Your task to perform on an android device: What's the weather today? Image 0: 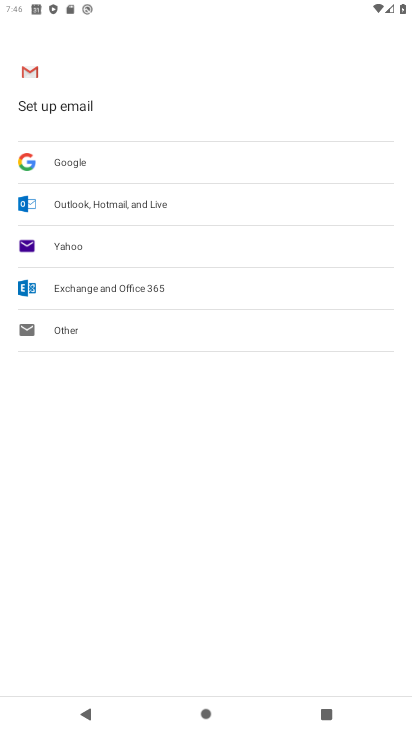
Step 0: press home button
Your task to perform on an android device: What's the weather today? Image 1: 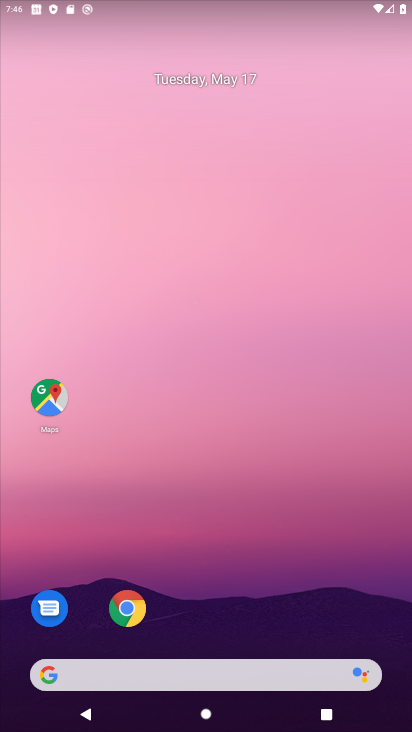
Step 1: drag from (369, 593) to (293, 60)
Your task to perform on an android device: What's the weather today? Image 2: 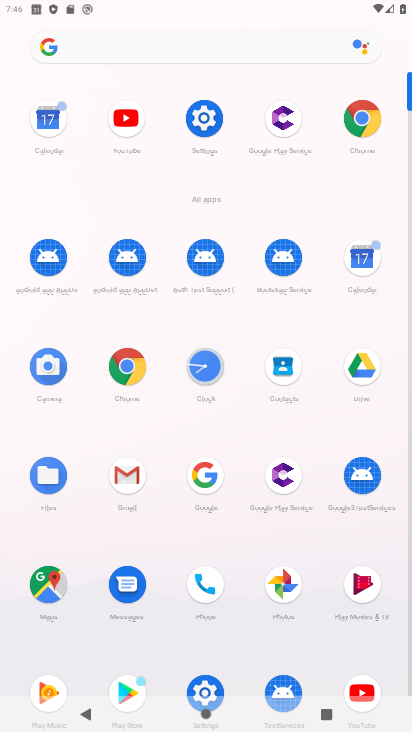
Step 2: click (131, 367)
Your task to perform on an android device: What's the weather today? Image 3: 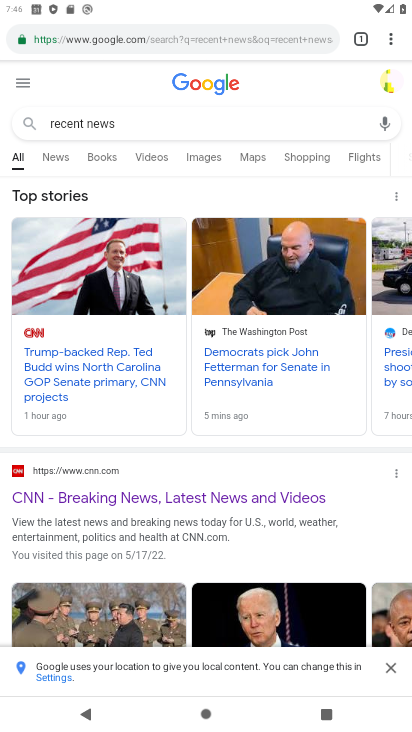
Step 3: click (161, 38)
Your task to perform on an android device: What's the weather today? Image 4: 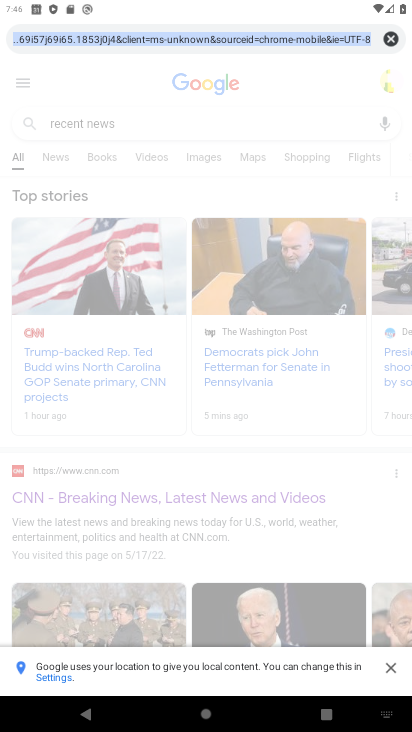
Step 4: click (385, 44)
Your task to perform on an android device: What's the weather today? Image 5: 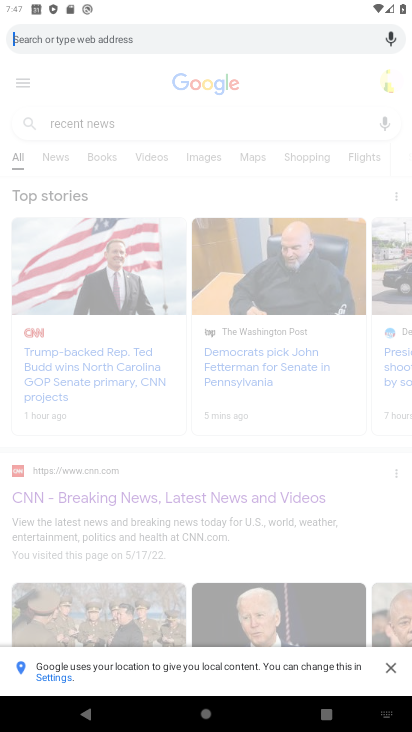
Step 5: type "what's the weather today"
Your task to perform on an android device: What's the weather today? Image 6: 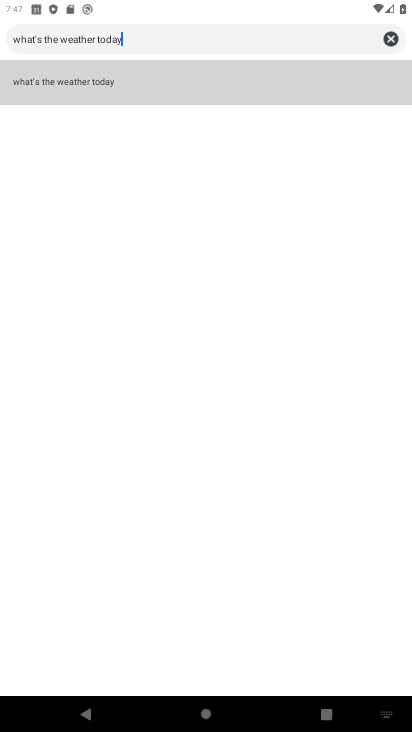
Step 6: click (62, 82)
Your task to perform on an android device: What's the weather today? Image 7: 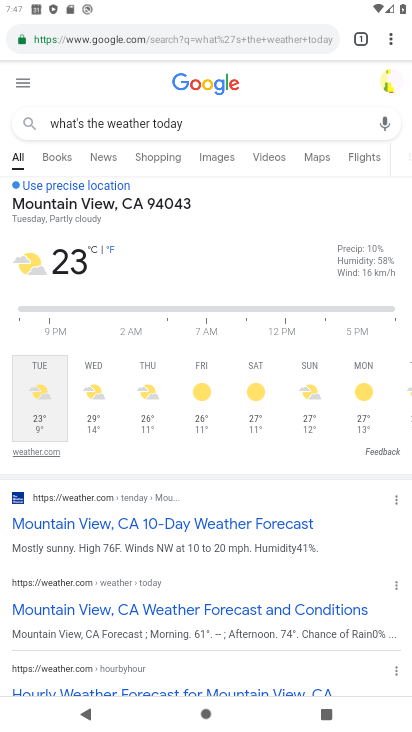
Step 7: task complete